Your task to perform on an android device: Open battery settings Image 0: 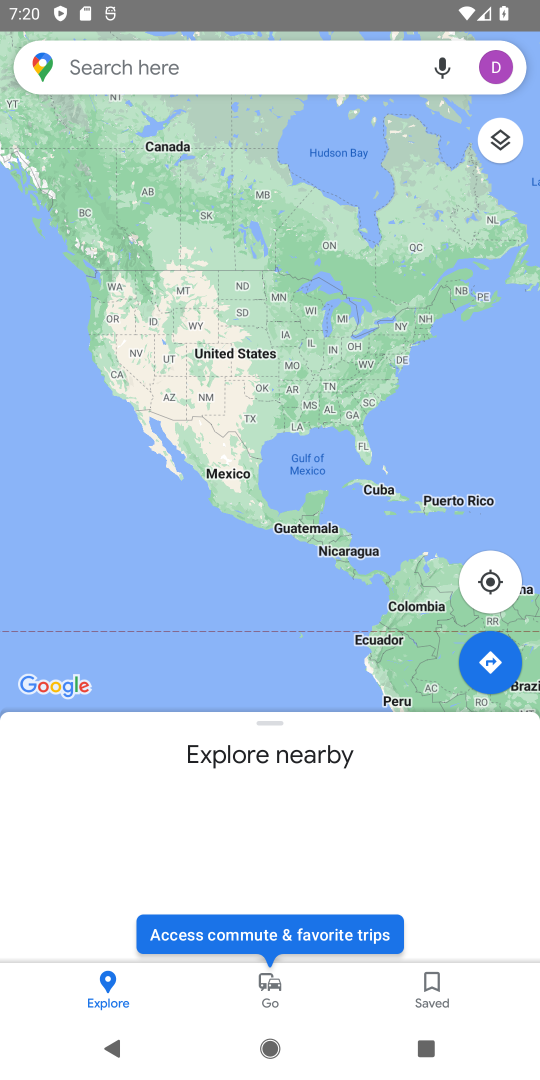
Step 0: press home button
Your task to perform on an android device: Open battery settings Image 1: 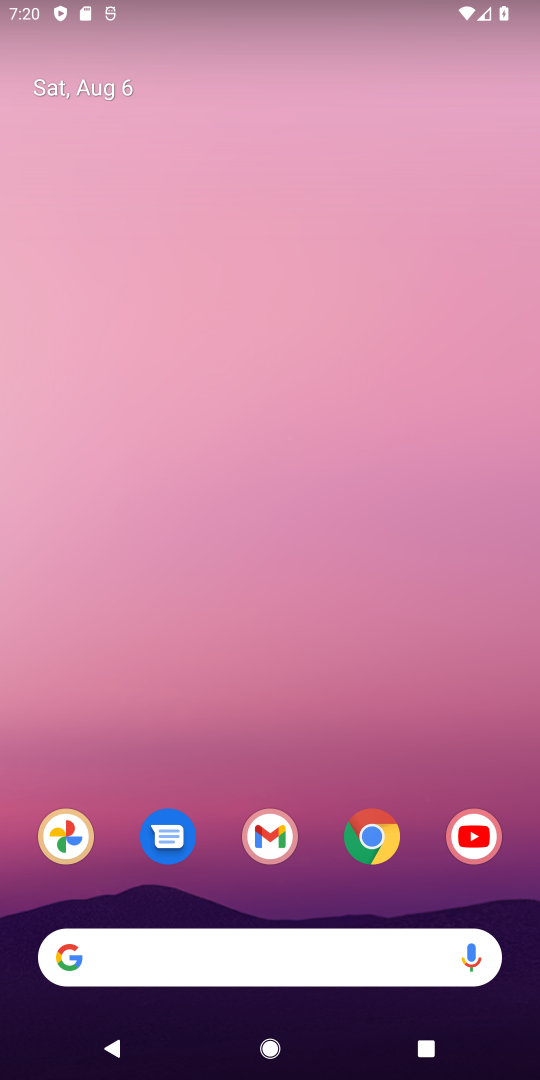
Step 1: drag from (206, 920) to (144, 341)
Your task to perform on an android device: Open battery settings Image 2: 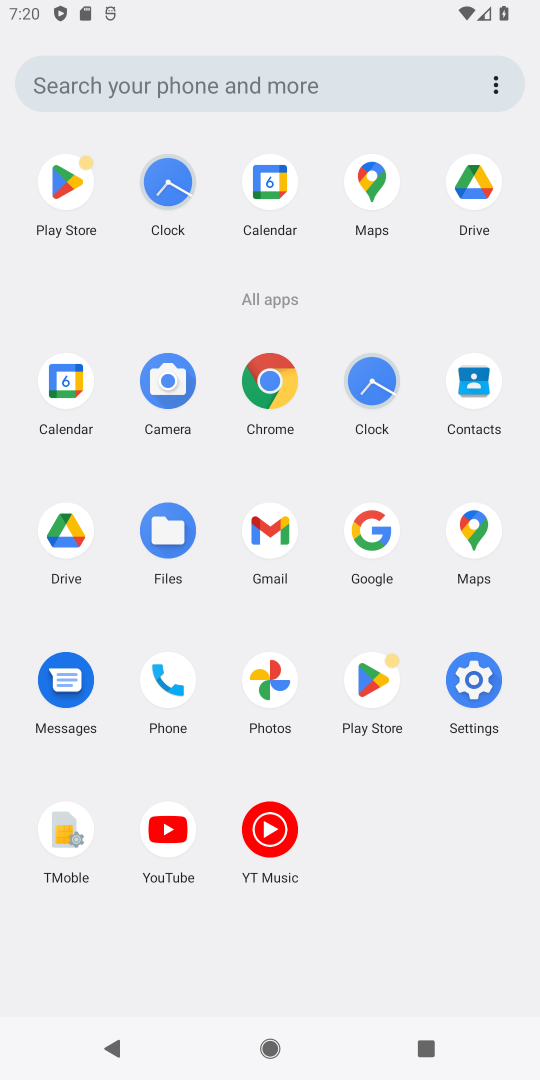
Step 2: click (480, 695)
Your task to perform on an android device: Open battery settings Image 3: 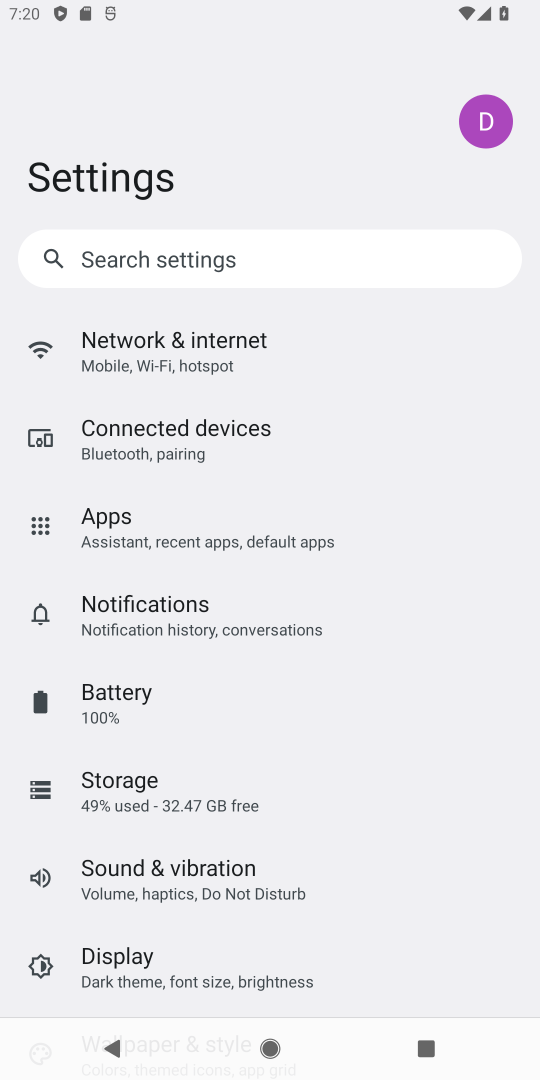
Step 3: click (128, 709)
Your task to perform on an android device: Open battery settings Image 4: 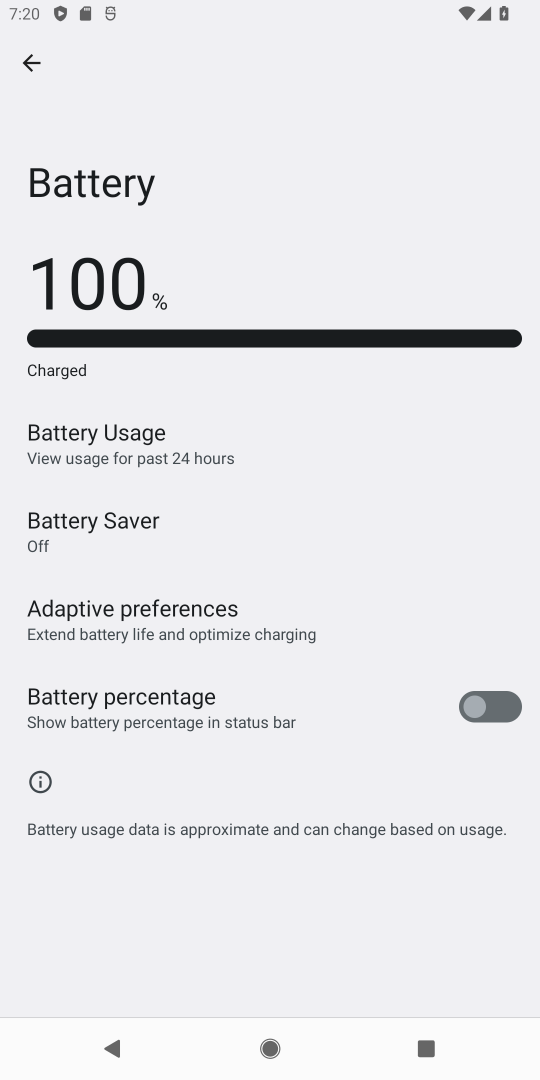
Step 4: task complete